Your task to perform on an android device: change text size in settings app Image 0: 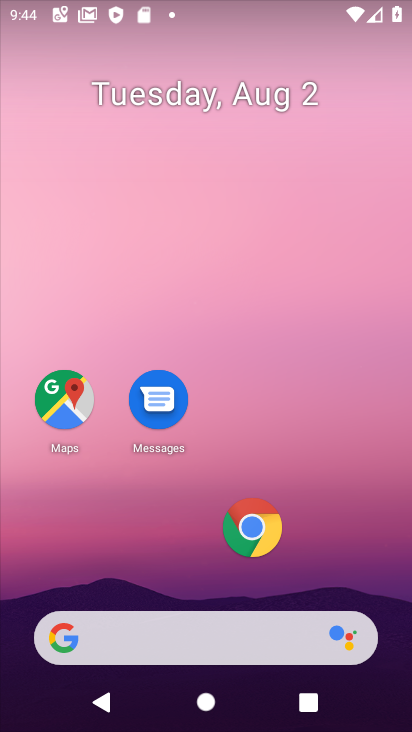
Step 0: drag from (229, 612) to (227, 144)
Your task to perform on an android device: change text size in settings app Image 1: 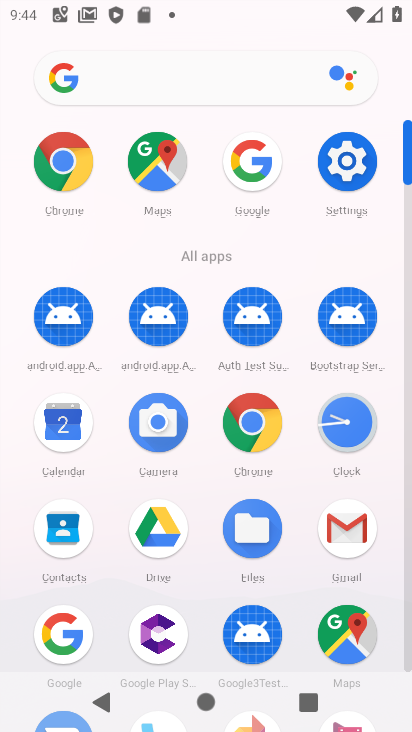
Step 1: click (340, 171)
Your task to perform on an android device: change text size in settings app Image 2: 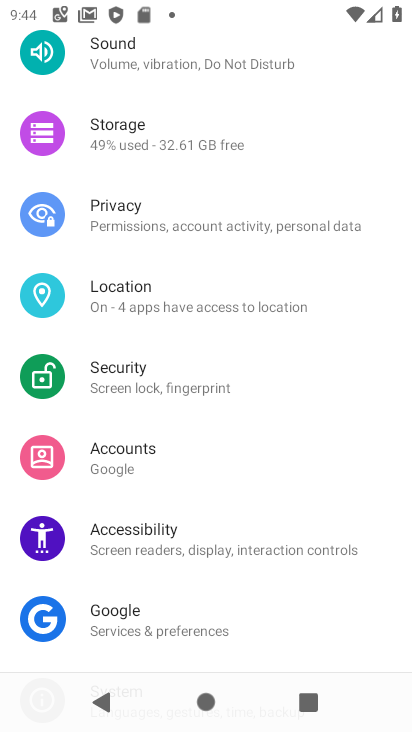
Step 2: drag from (200, 626) to (197, 311)
Your task to perform on an android device: change text size in settings app Image 3: 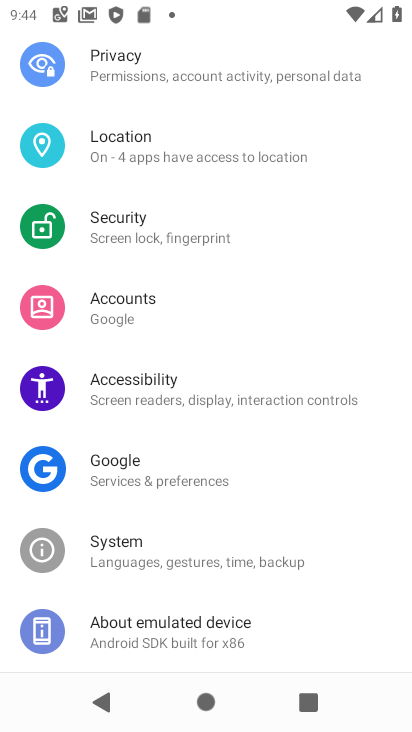
Step 3: click (158, 390)
Your task to perform on an android device: change text size in settings app Image 4: 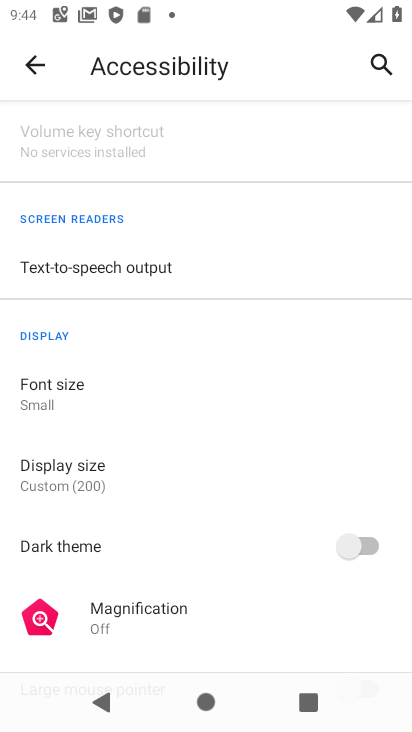
Step 4: click (68, 392)
Your task to perform on an android device: change text size in settings app Image 5: 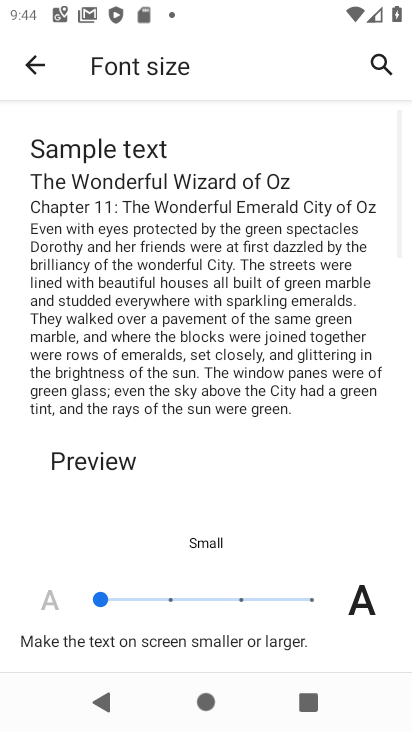
Step 5: click (245, 598)
Your task to perform on an android device: change text size in settings app Image 6: 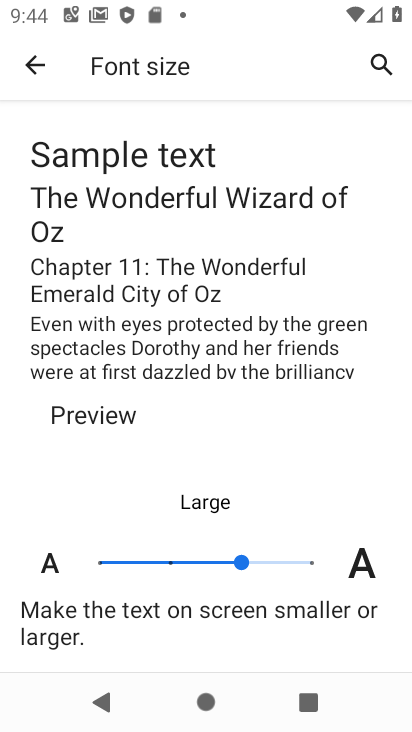
Step 6: task complete